Your task to perform on an android device: When is my next meeting? Image 0: 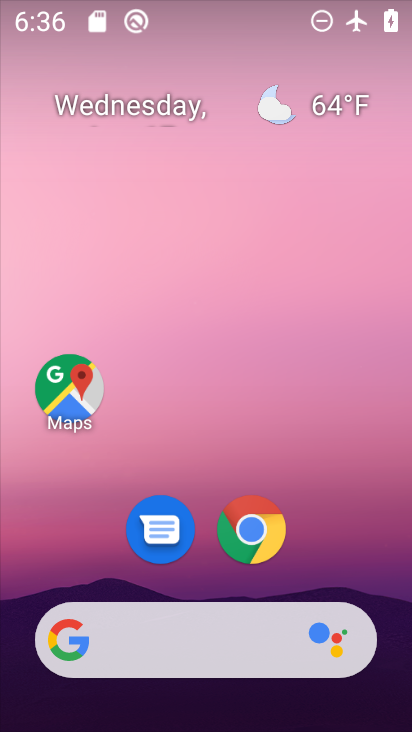
Step 0: click (262, 82)
Your task to perform on an android device: When is my next meeting? Image 1: 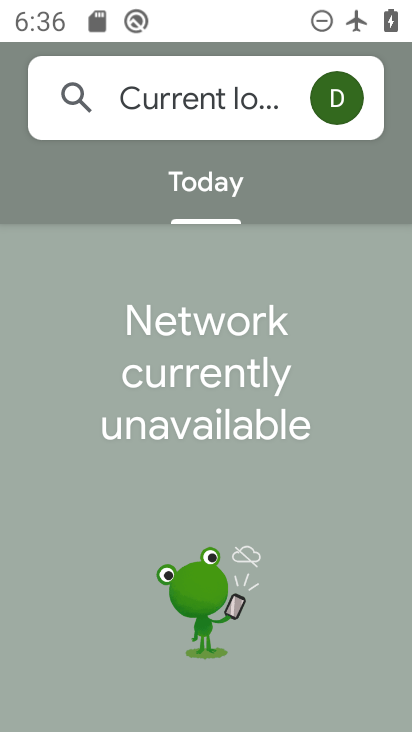
Step 1: press home button
Your task to perform on an android device: When is my next meeting? Image 2: 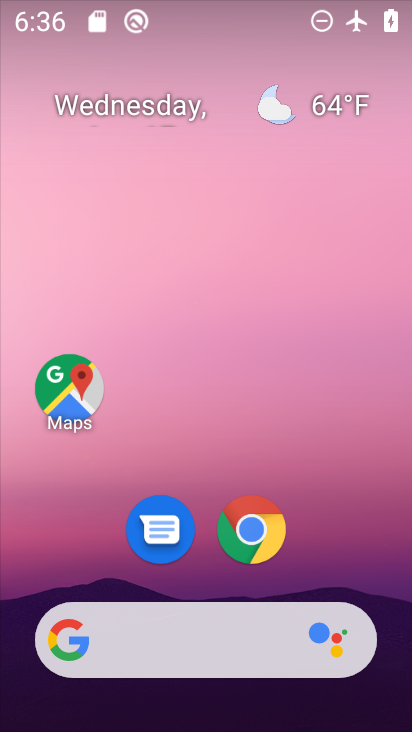
Step 2: drag from (198, 480) to (214, 70)
Your task to perform on an android device: When is my next meeting? Image 3: 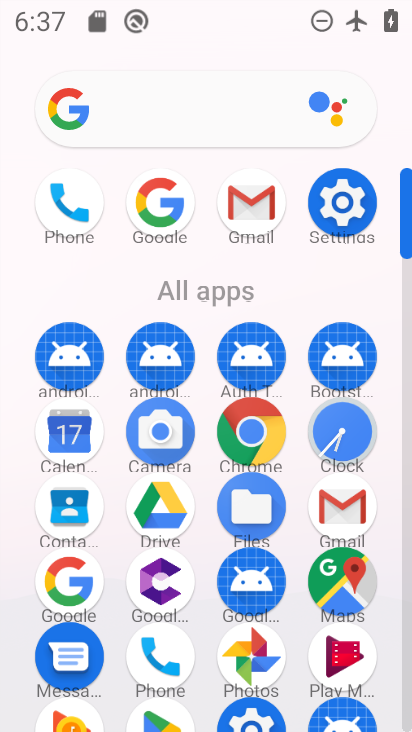
Step 3: click (101, 428)
Your task to perform on an android device: When is my next meeting? Image 4: 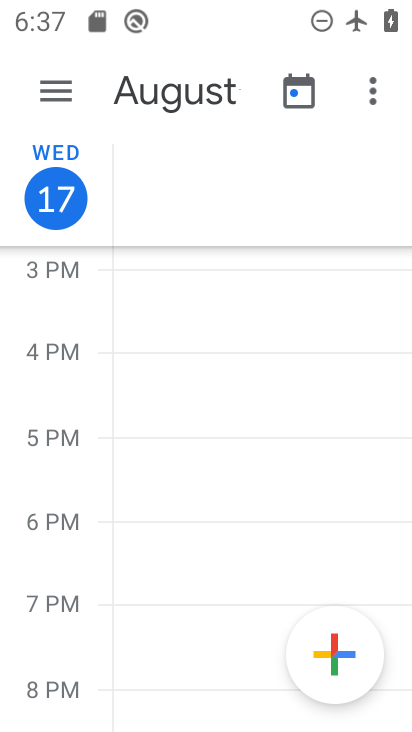
Step 4: click (69, 91)
Your task to perform on an android device: When is my next meeting? Image 5: 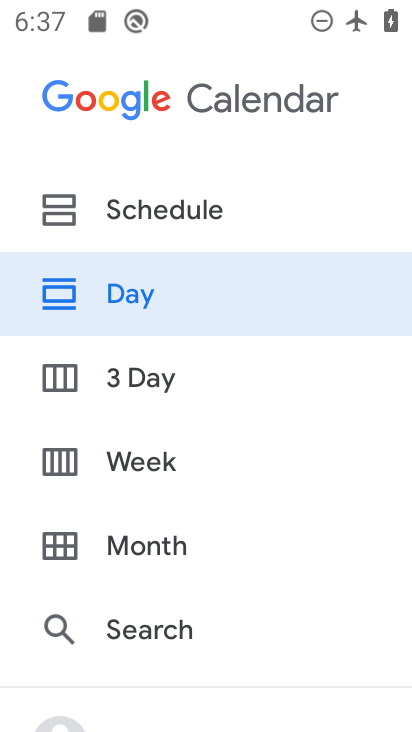
Step 5: click (143, 470)
Your task to perform on an android device: When is my next meeting? Image 6: 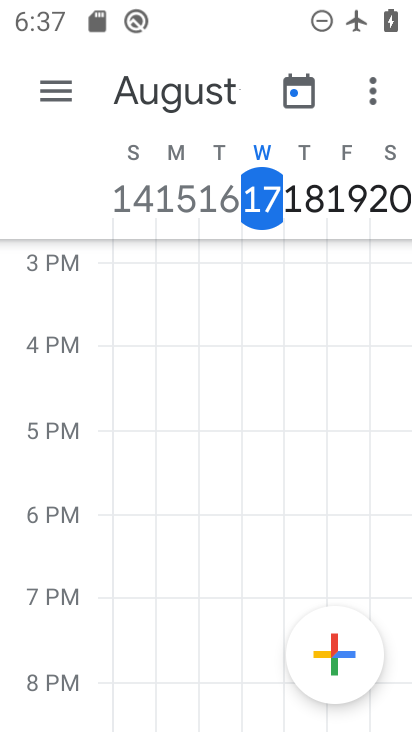
Step 6: task complete